Your task to perform on an android device: turn on airplane mode Image 0: 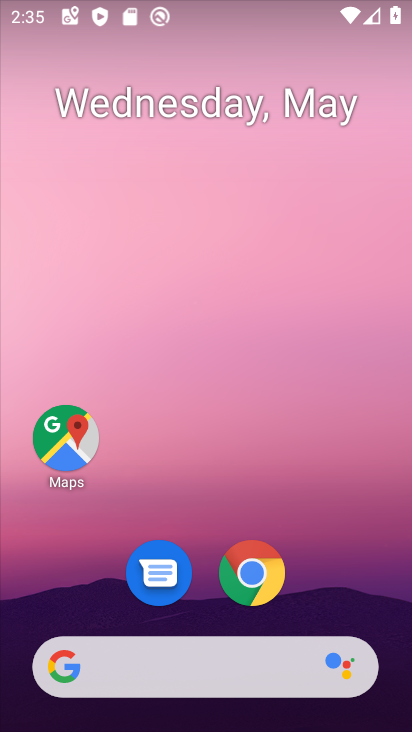
Step 0: drag from (330, 582) to (329, 72)
Your task to perform on an android device: turn on airplane mode Image 1: 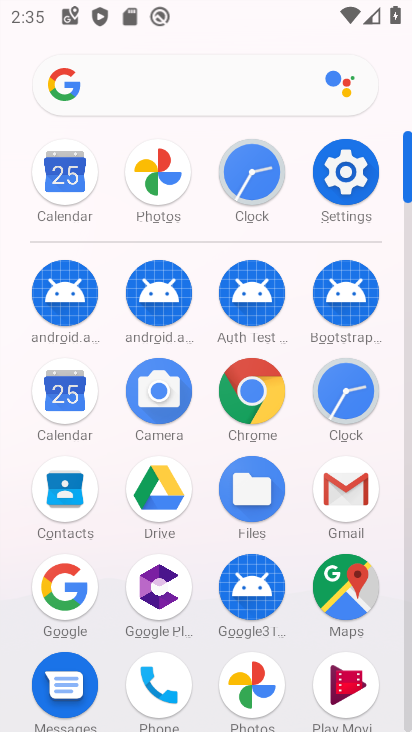
Step 1: click (351, 177)
Your task to perform on an android device: turn on airplane mode Image 2: 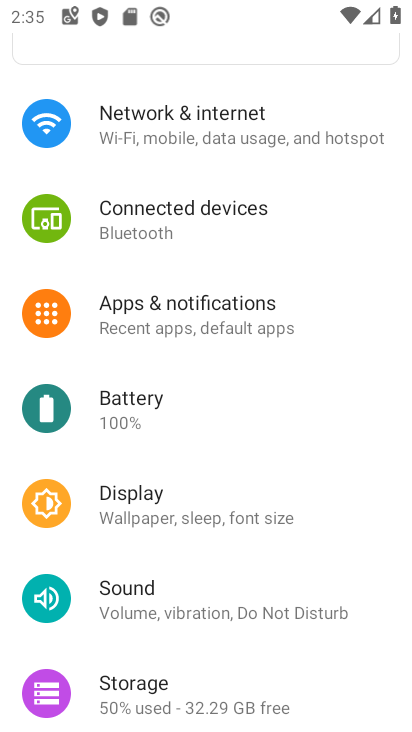
Step 2: click (189, 135)
Your task to perform on an android device: turn on airplane mode Image 3: 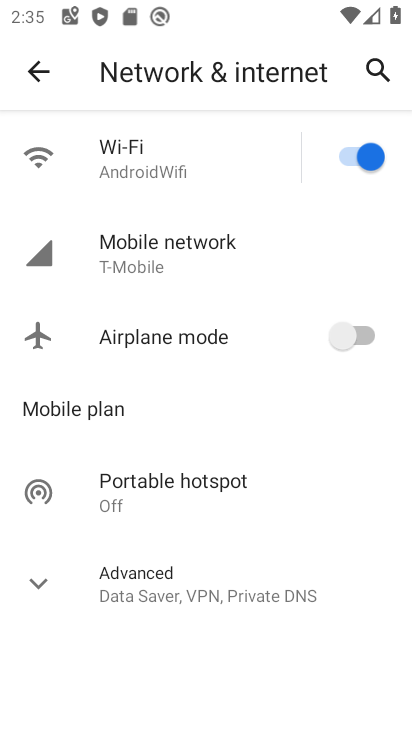
Step 3: click (367, 327)
Your task to perform on an android device: turn on airplane mode Image 4: 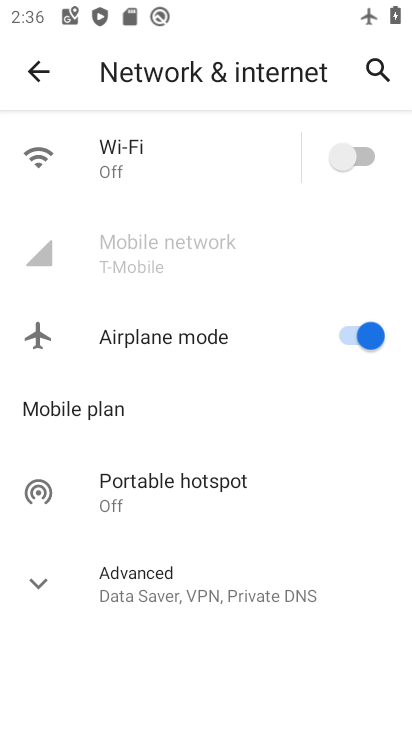
Step 4: task complete